Your task to perform on an android device: Go to Amazon Image 0: 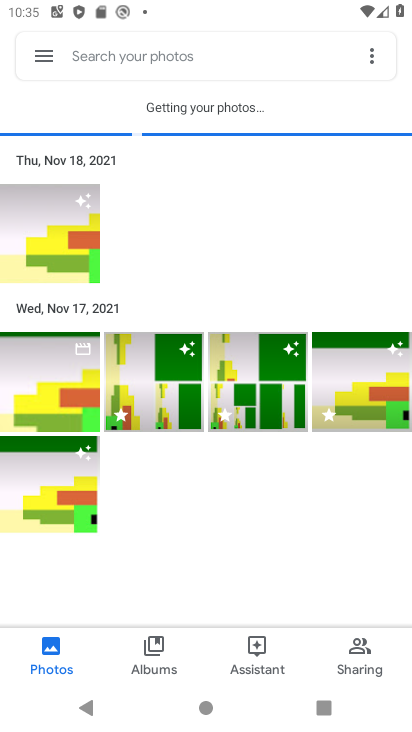
Step 0: press back button
Your task to perform on an android device: Go to Amazon Image 1: 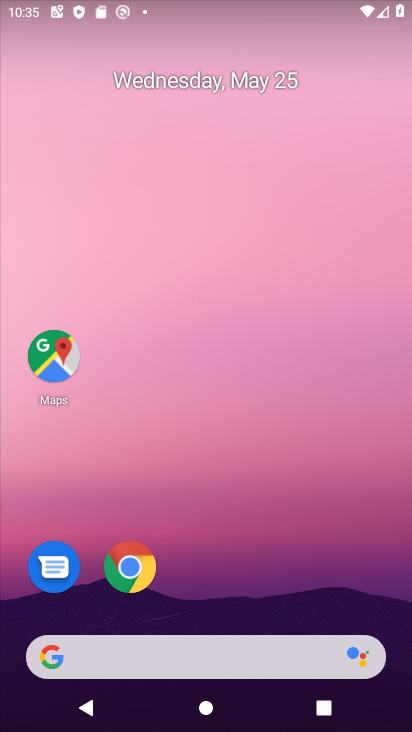
Step 1: drag from (268, 598) to (224, 39)
Your task to perform on an android device: Go to Amazon Image 2: 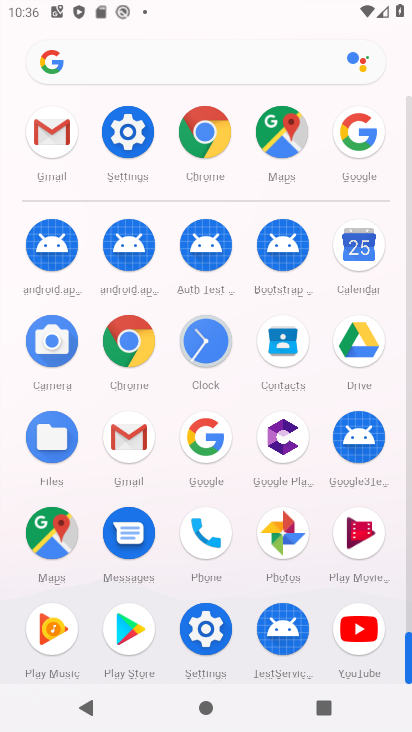
Step 2: click (201, 136)
Your task to perform on an android device: Go to Amazon Image 3: 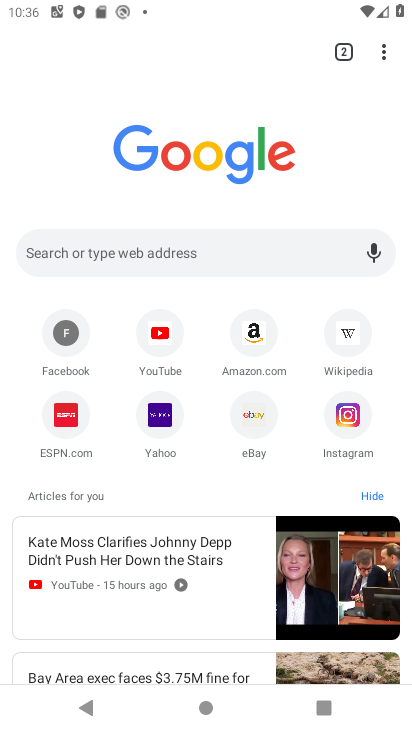
Step 3: click (110, 245)
Your task to perform on an android device: Go to Amazon Image 4: 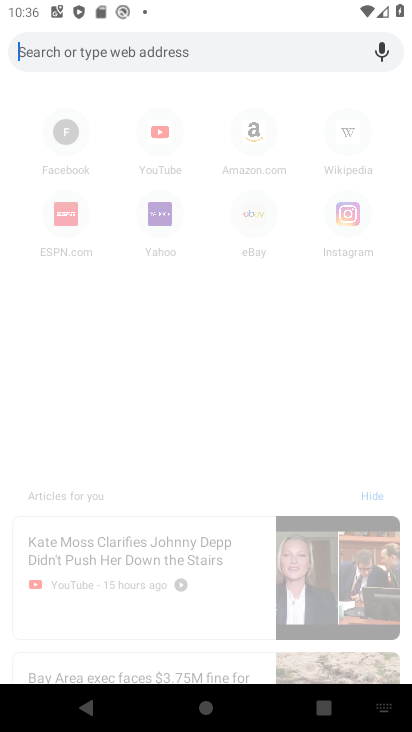
Step 4: type "amazon"
Your task to perform on an android device: Go to Amazon Image 5: 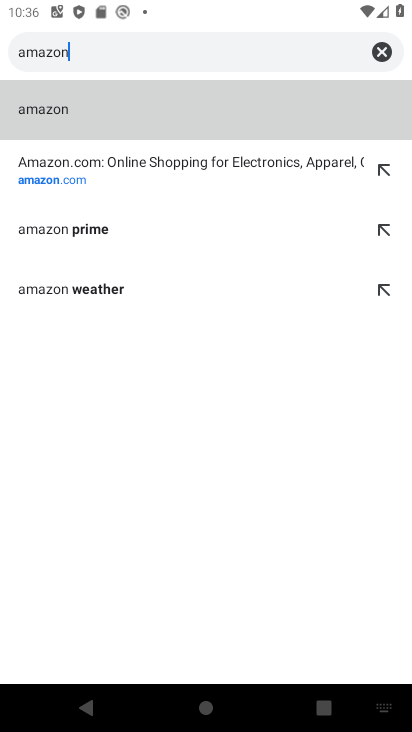
Step 5: click (39, 169)
Your task to perform on an android device: Go to Amazon Image 6: 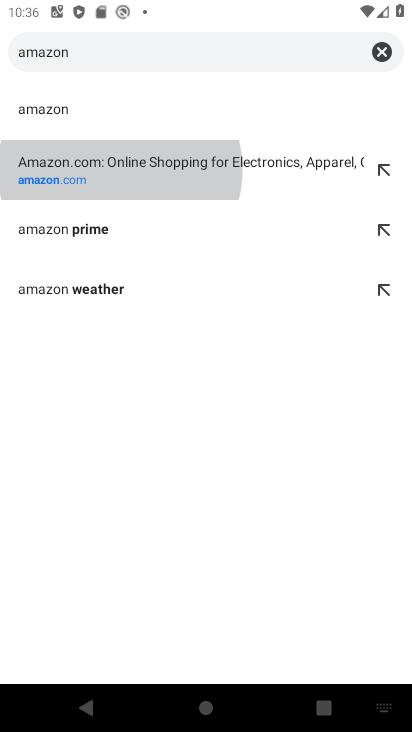
Step 6: click (40, 168)
Your task to perform on an android device: Go to Amazon Image 7: 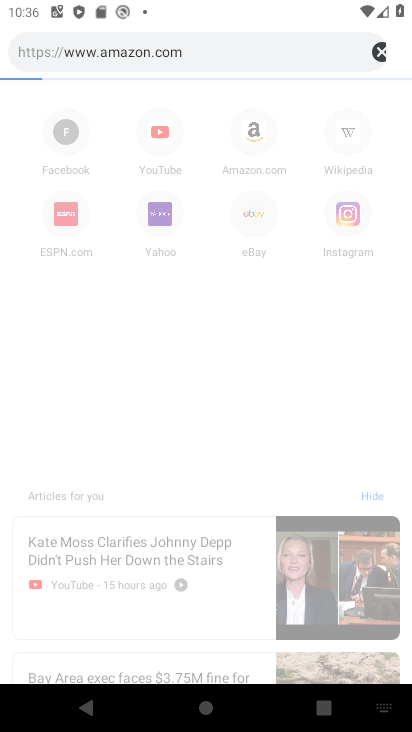
Step 7: click (41, 167)
Your task to perform on an android device: Go to Amazon Image 8: 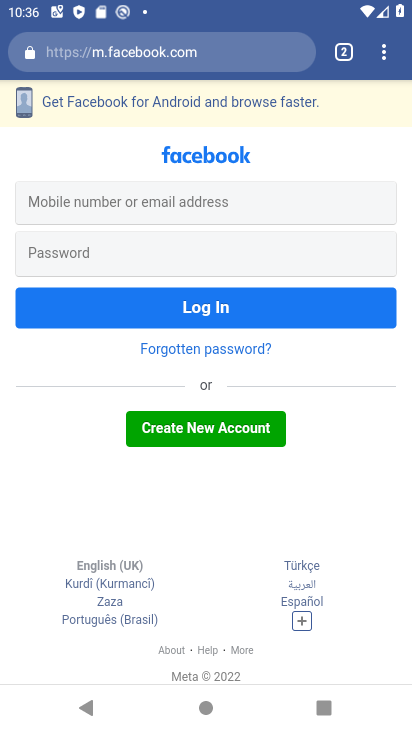
Step 8: task complete